Your task to perform on an android device: add a contact in the contacts app Image 0: 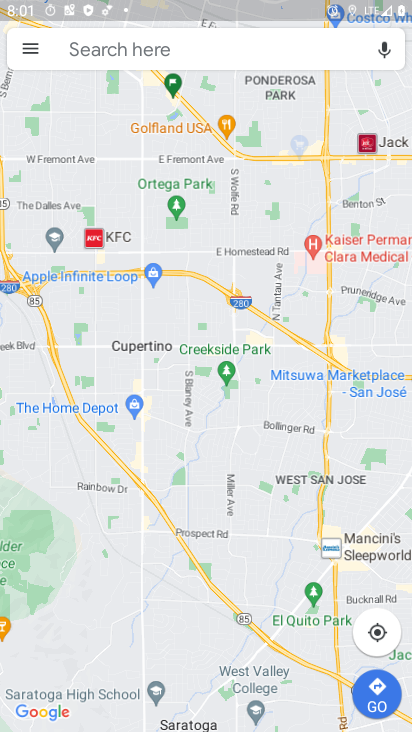
Step 0: press home button
Your task to perform on an android device: add a contact in the contacts app Image 1: 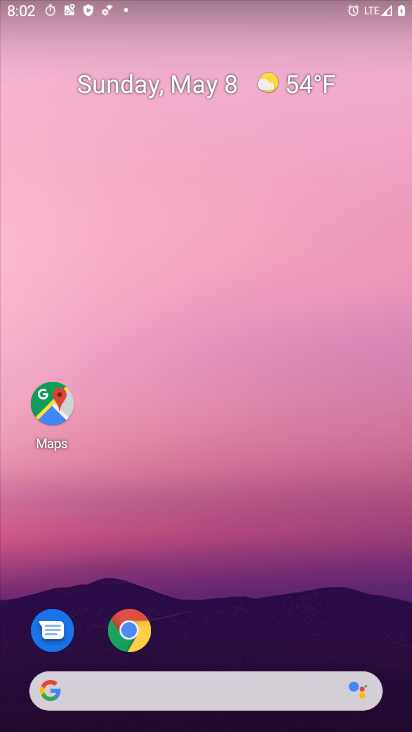
Step 1: drag from (204, 660) to (150, 19)
Your task to perform on an android device: add a contact in the contacts app Image 2: 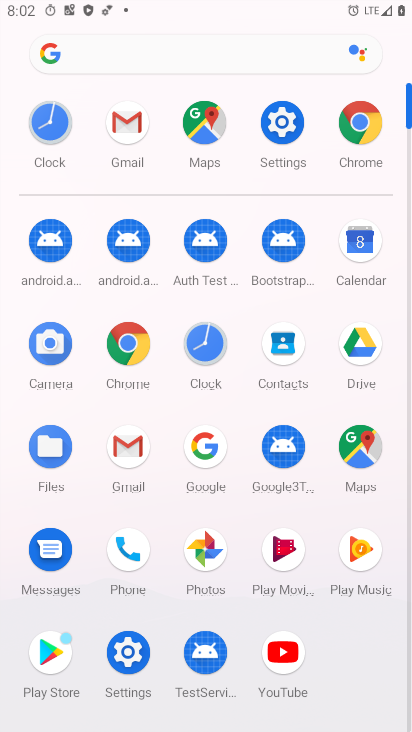
Step 2: click (143, 555)
Your task to perform on an android device: add a contact in the contacts app Image 3: 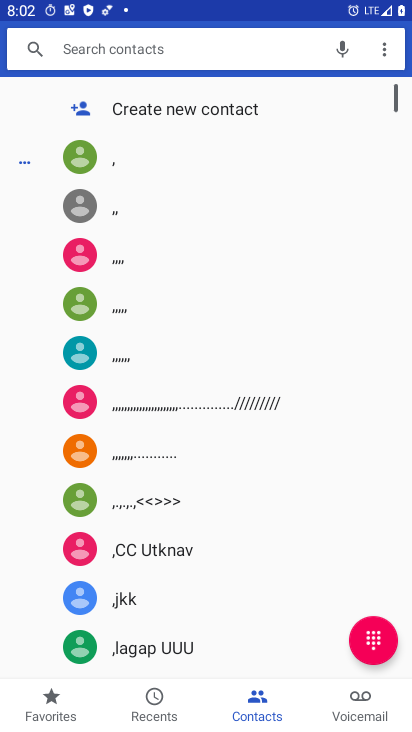
Step 3: click (165, 123)
Your task to perform on an android device: add a contact in the contacts app Image 4: 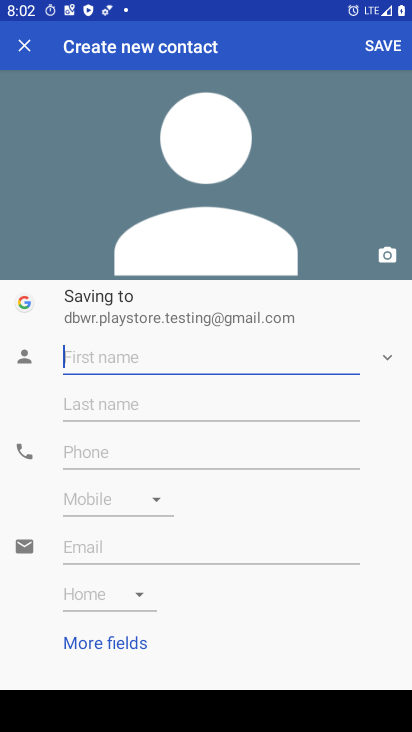
Step 4: type "bin"
Your task to perform on an android device: add a contact in the contacts app Image 5: 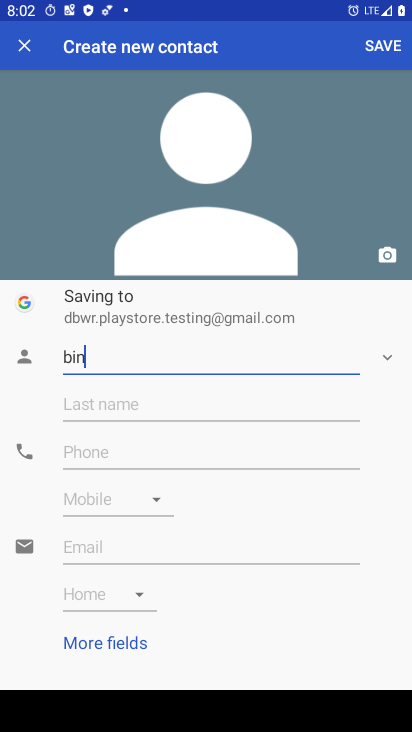
Step 5: click (93, 457)
Your task to perform on an android device: add a contact in the contacts app Image 6: 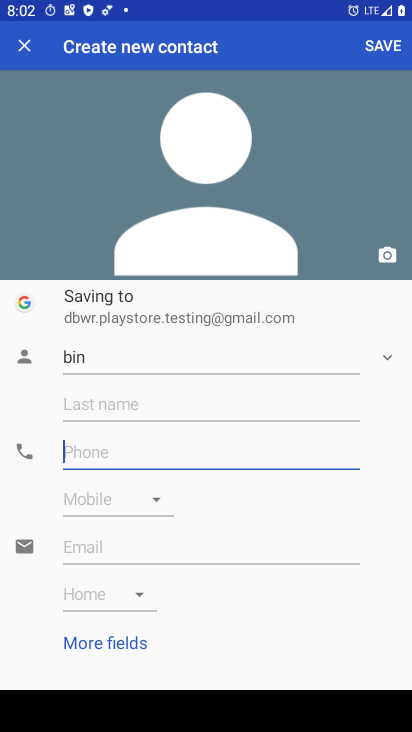
Step 6: type "765456"
Your task to perform on an android device: add a contact in the contacts app Image 7: 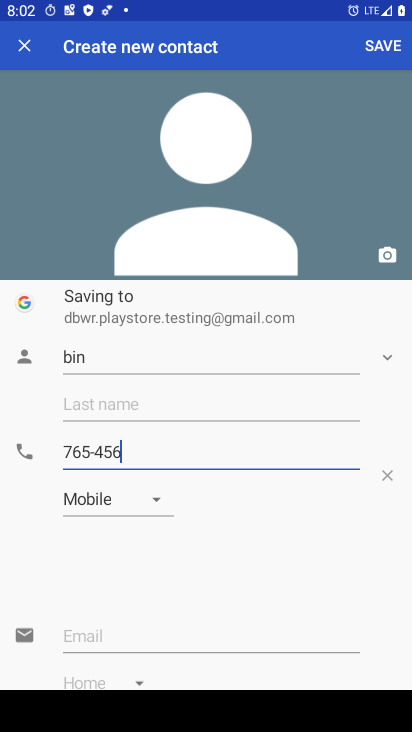
Step 7: type ""
Your task to perform on an android device: add a contact in the contacts app Image 8: 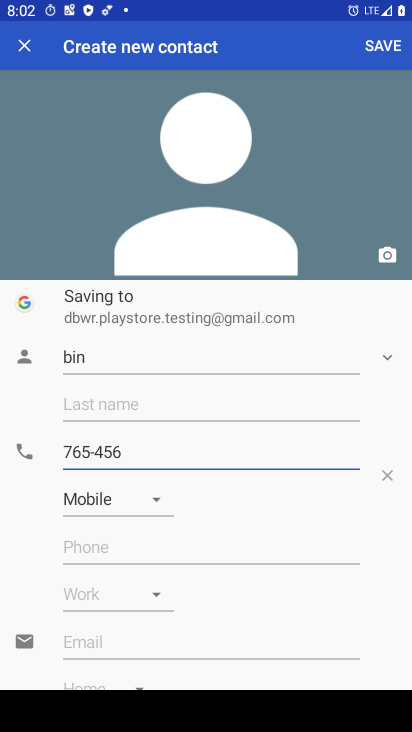
Step 8: click (366, 51)
Your task to perform on an android device: add a contact in the contacts app Image 9: 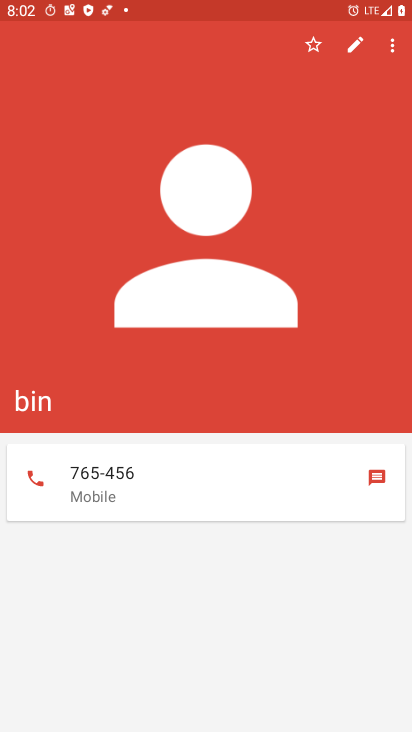
Step 9: task complete